Your task to perform on an android device: Go to internet settings Image 0: 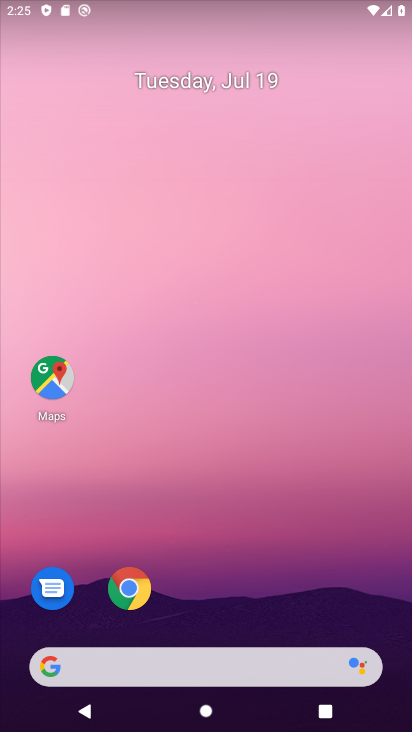
Step 0: drag from (176, 591) to (190, 81)
Your task to perform on an android device: Go to internet settings Image 1: 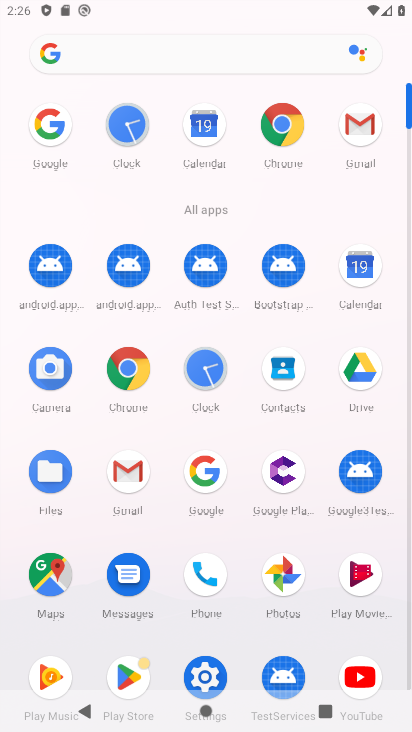
Step 1: click (207, 676)
Your task to perform on an android device: Go to internet settings Image 2: 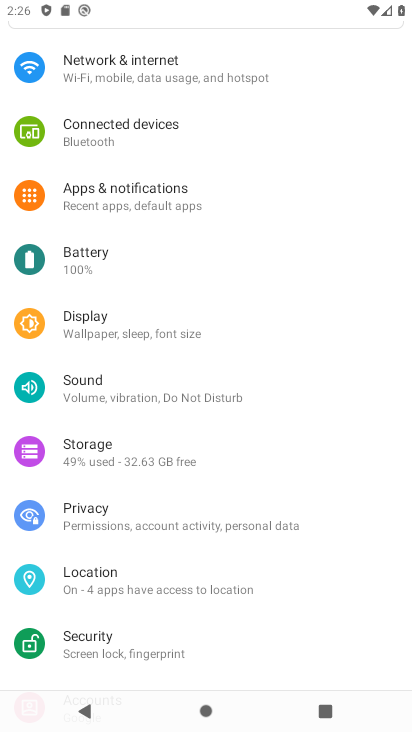
Step 2: click (115, 72)
Your task to perform on an android device: Go to internet settings Image 3: 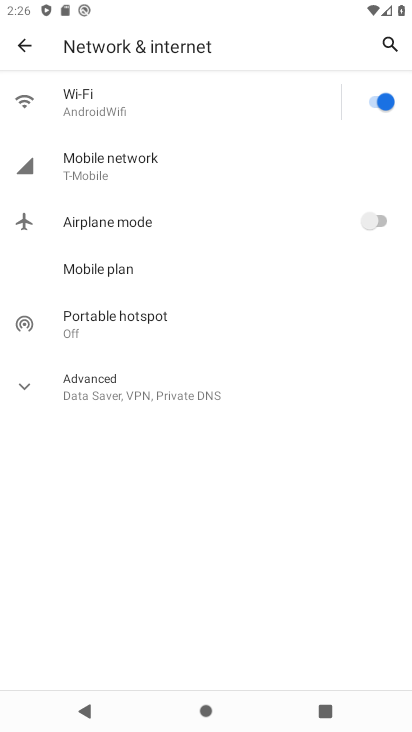
Step 3: click (116, 203)
Your task to perform on an android device: Go to internet settings Image 4: 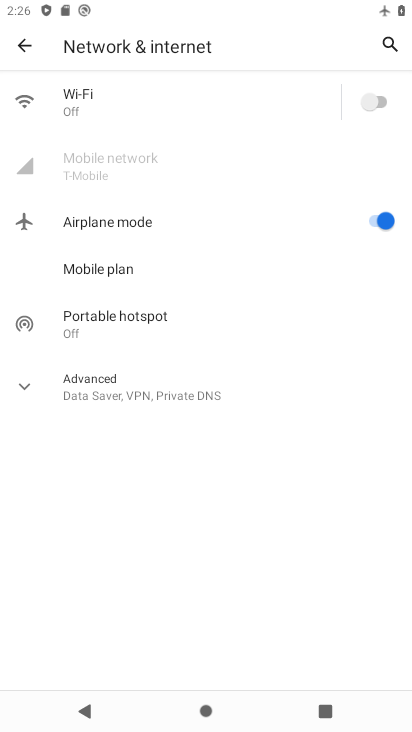
Step 4: click (374, 222)
Your task to perform on an android device: Go to internet settings Image 5: 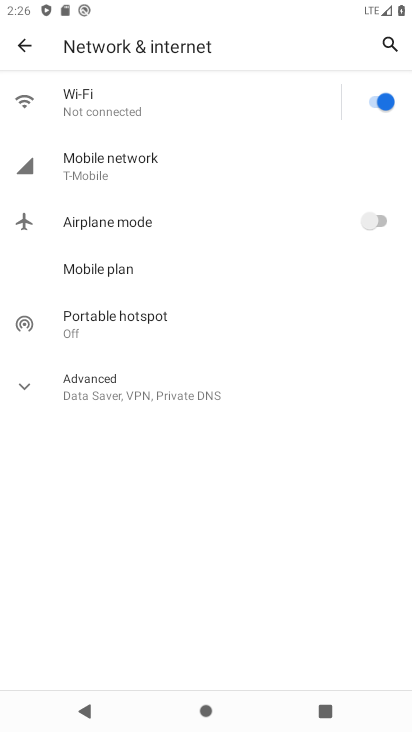
Step 5: task complete